Your task to perform on an android device: Check the news Image 0: 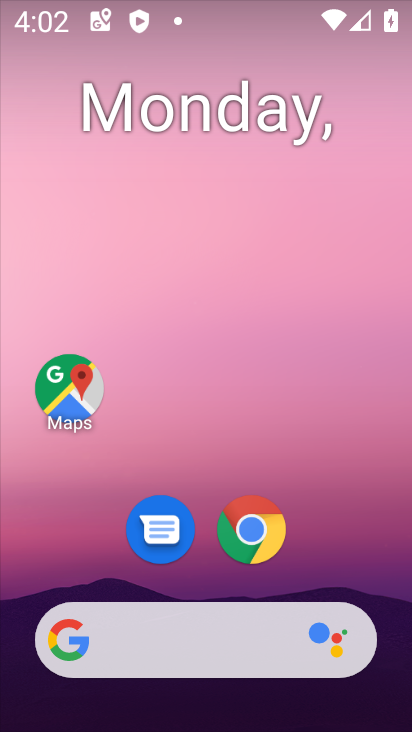
Step 0: drag from (4, 266) to (264, 229)
Your task to perform on an android device: Check the news Image 1: 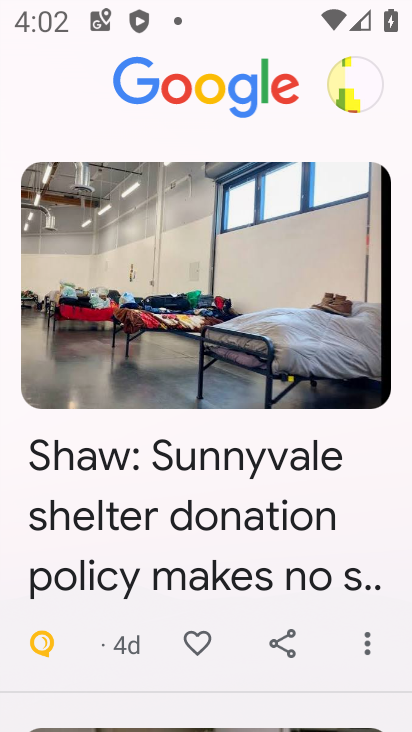
Step 1: task complete